Your task to perform on an android device: add a contact Image 0: 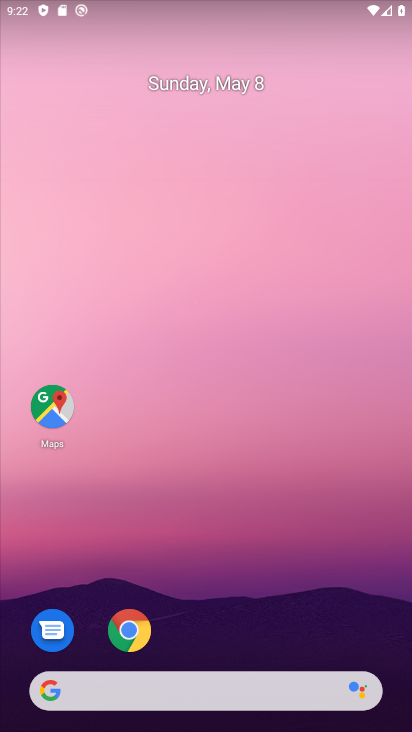
Step 0: drag from (269, 617) to (293, 46)
Your task to perform on an android device: add a contact Image 1: 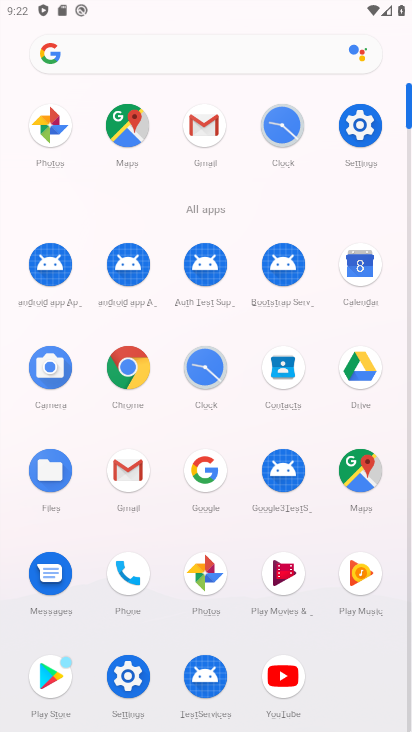
Step 1: click (275, 367)
Your task to perform on an android device: add a contact Image 2: 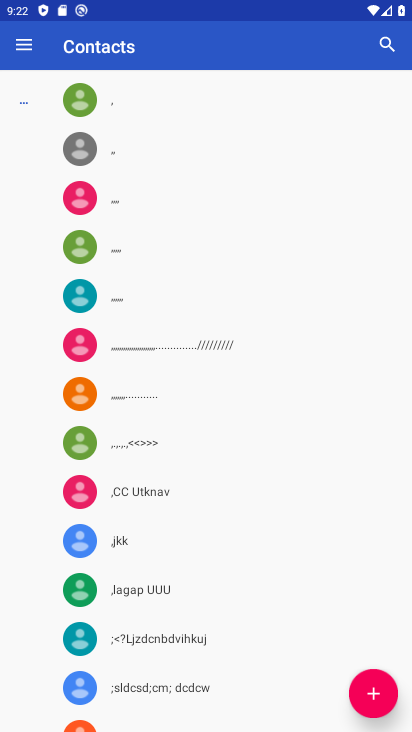
Step 2: click (383, 698)
Your task to perform on an android device: add a contact Image 3: 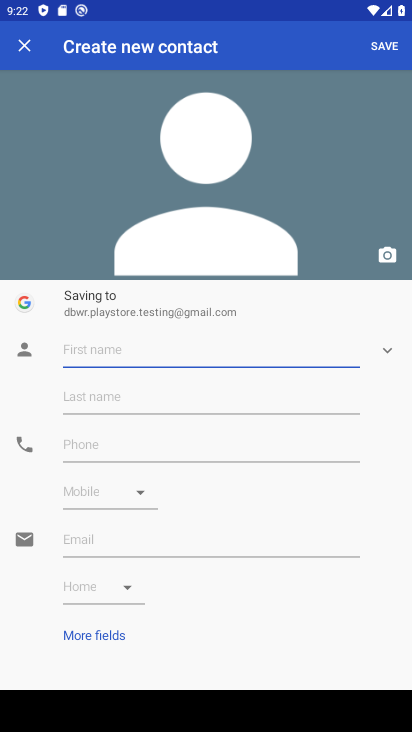
Step 3: type "good"
Your task to perform on an android device: add a contact Image 4: 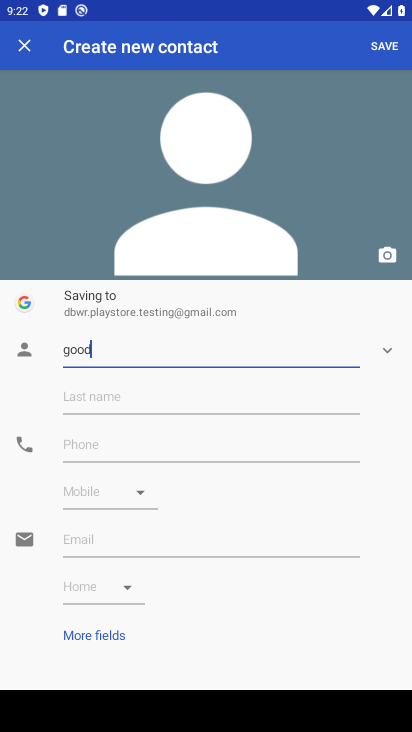
Step 4: type ""
Your task to perform on an android device: add a contact Image 5: 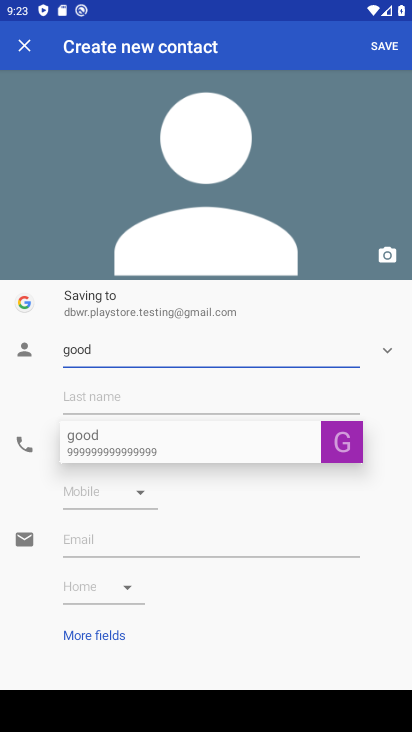
Step 5: type "by"
Your task to perform on an android device: add a contact Image 6: 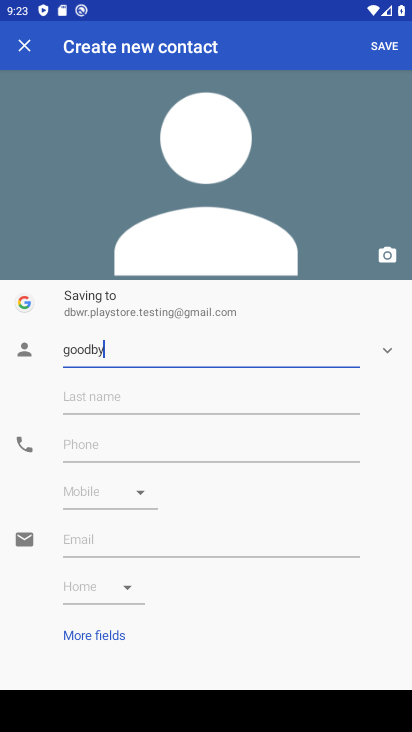
Step 6: click (396, 45)
Your task to perform on an android device: add a contact Image 7: 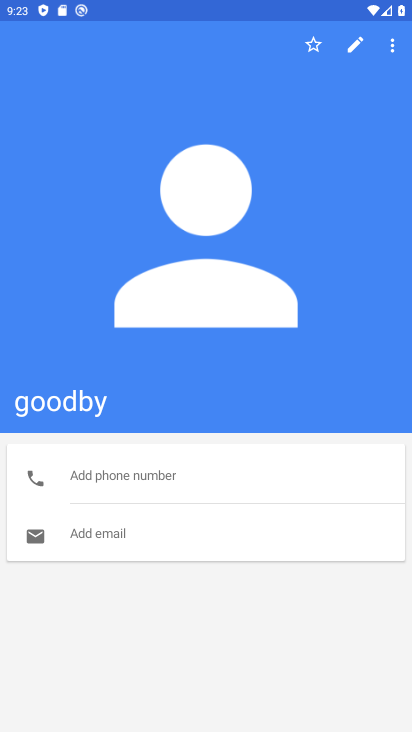
Step 7: task complete